Your task to perform on an android device: open wifi settings Image 0: 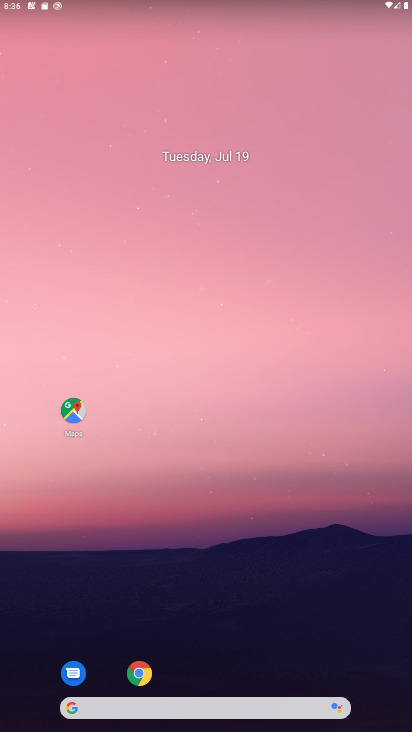
Step 0: drag from (382, 679) to (323, 101)
Your task to perform on an android device: open wifi settings Image 1: 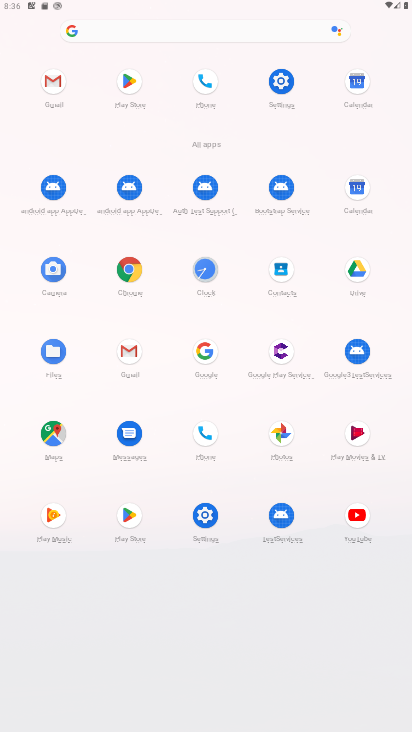
Step 1: click (205, 515)
Your task to perform on an android device: open wifi settings Image 2: 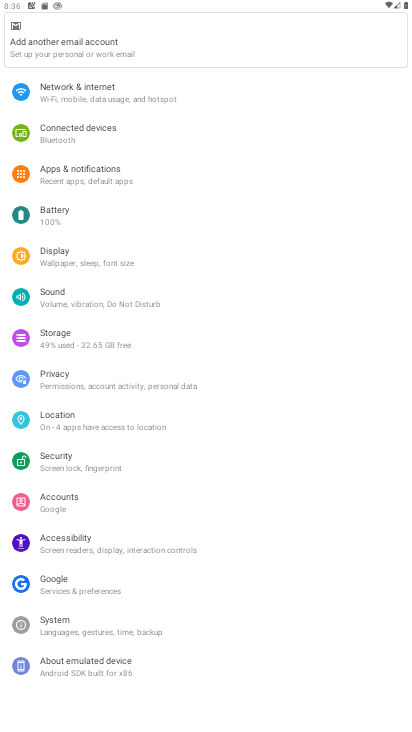
Step 2: click (78, 95)
Your task to perform on an android device: open wifi settings Image 3: 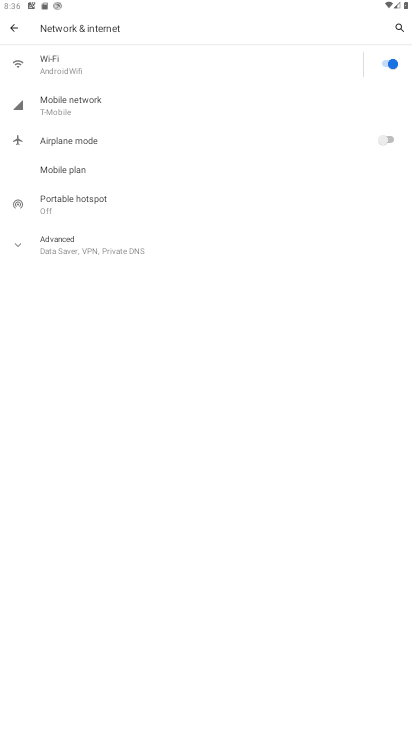
Step 3: click (46, 45)
Your task to perform on an android device: open wifi settings Image 4: 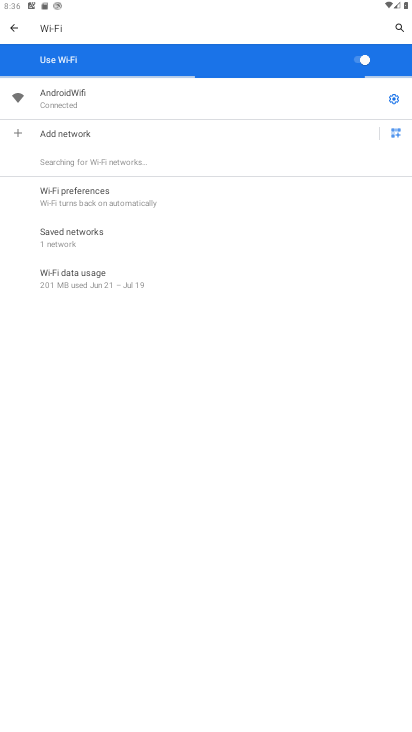
Step 4: click (395, 100)
Your task to perform on an android device: open wifi settings Image 5: 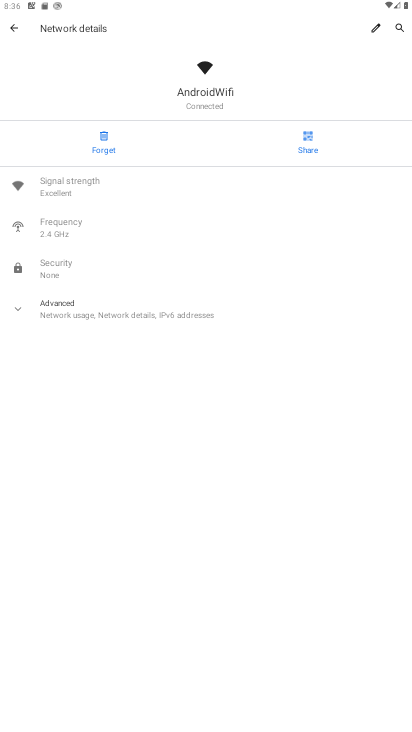
Step 5: task complete